Your task to perform on an android device: empty trash in google photos Image 0: 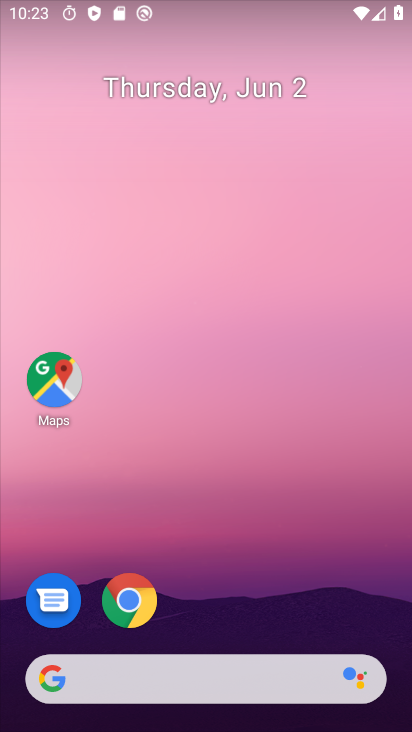
Step 0: drag from (231, 611) to (258, 115)
Your task to perform on an android device: empty trash in google photos Image 1: 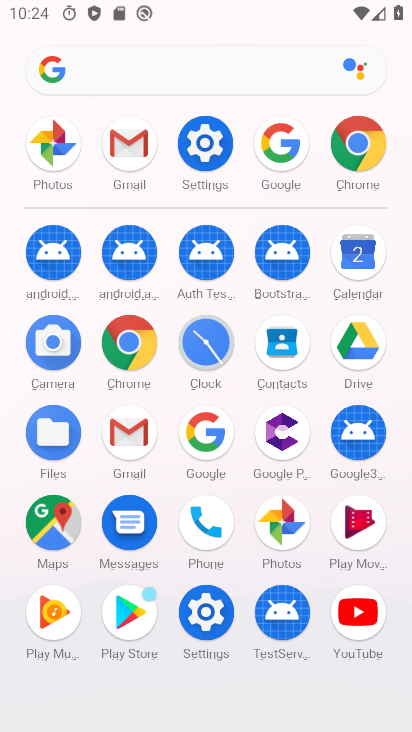
Step 1: click (287, 520)
Your task to perform on an android device: empty trash in google photos Image 2: 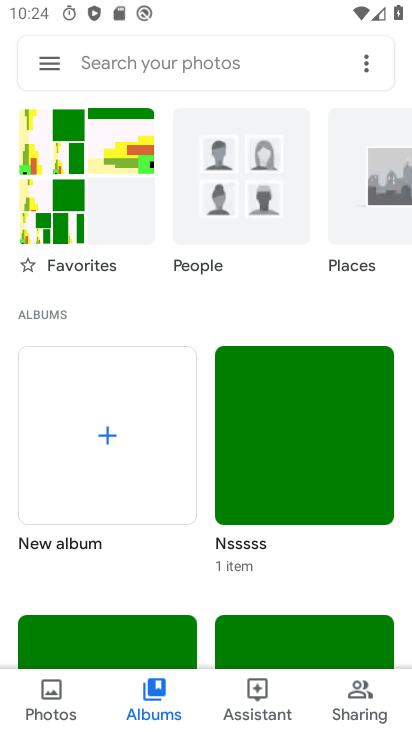
Step 2: click (48, 65)
Your task to perform on an android device: empty trash in google photos Image 3: 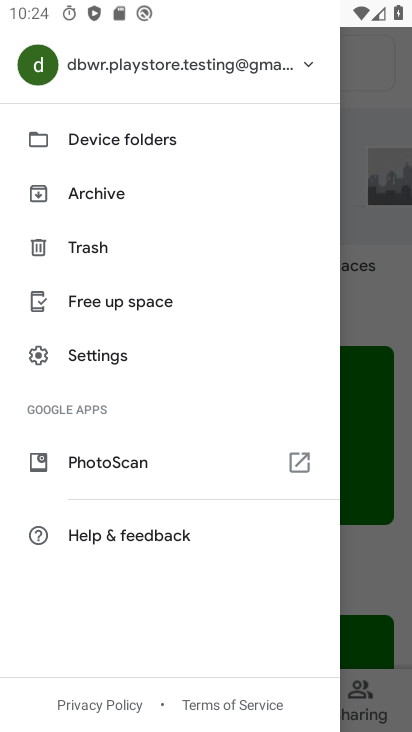
Step 3: click (105, 246)
Your task to perform on an android device: empty trash in google photos Image 4: 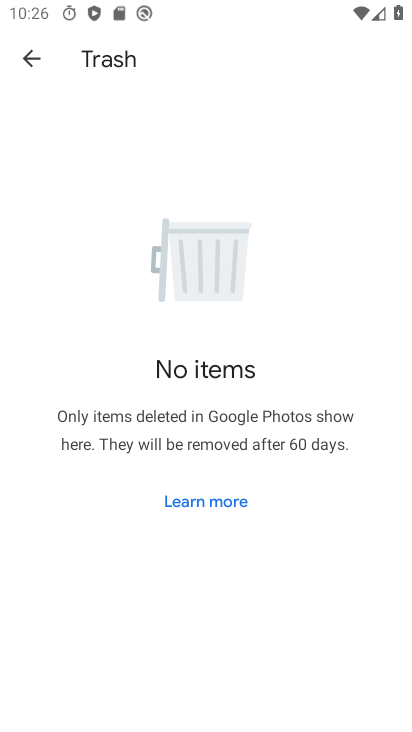
Step 4: task complete